Your task to perform on an android device: Search for pizza restaurants on Maps Image 0: 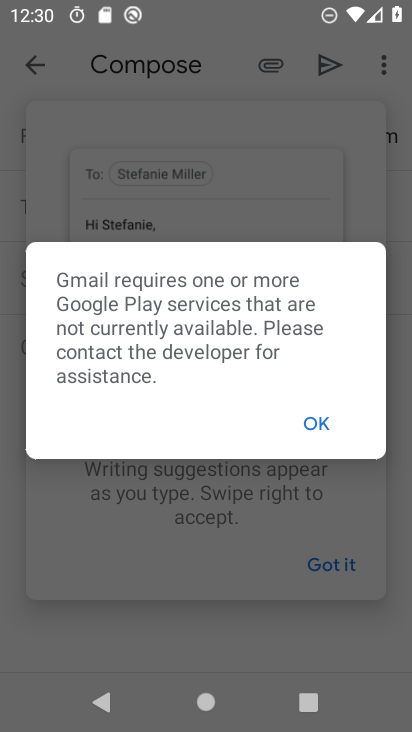
Step 0: press home button
Your task to perform on an android device: Search for pizza restaurants on Maps Image 1: 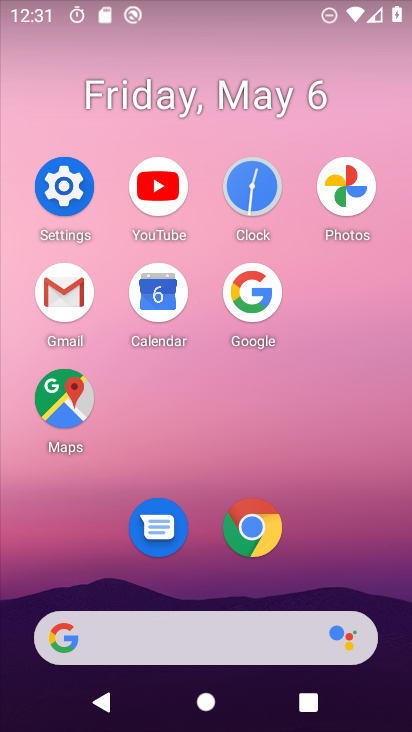
Step 1: click (74, 392)
Your task to perform on an android device: Search for pizza restaurants on Maps Image 2: 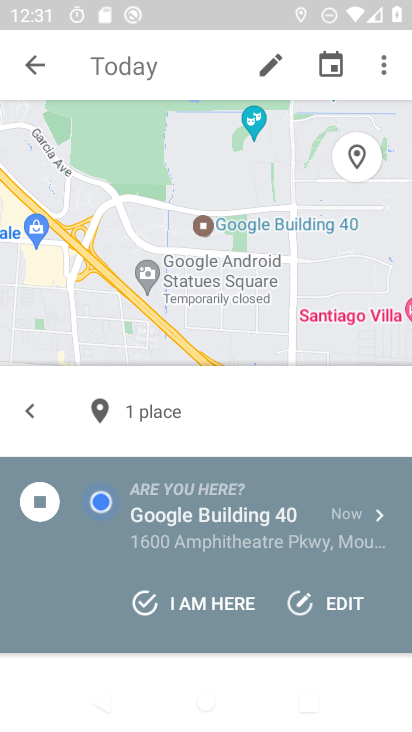
Step 2: click (156, 64)
Your task to perform on an android device: Search for pizza restaurants on Maps Image 3: 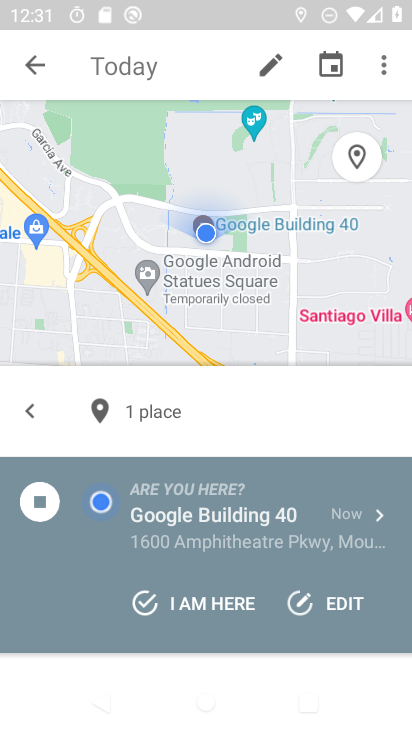
Step 3: click (26, 68)
Your task to perform on an android device: Search for pizza restaurants on Maps Image 4: 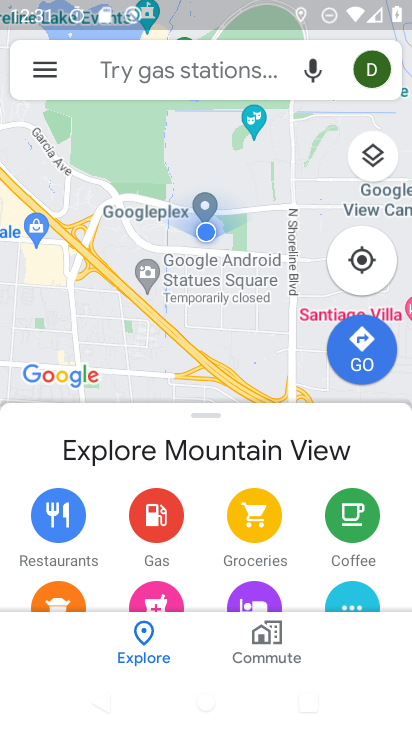
Step 4: click (166, 68)
Your task to perform on an android device: Search for pizza restaurants on Maps Image 5: 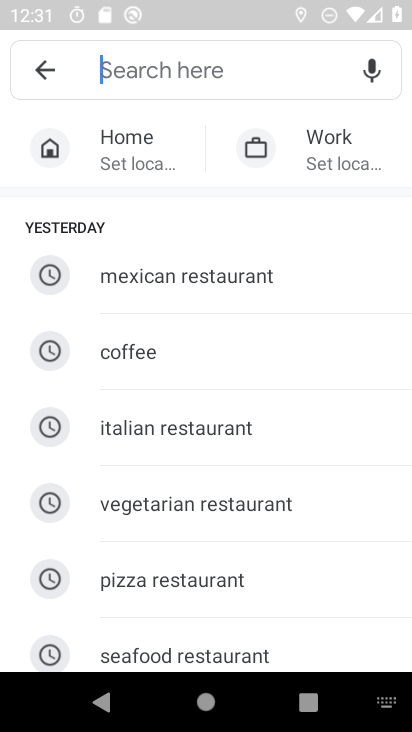
Step 5: type "pizza restaurants"
Your task to perform on an android device: Search for pizza restaurants on Maps Image 6: 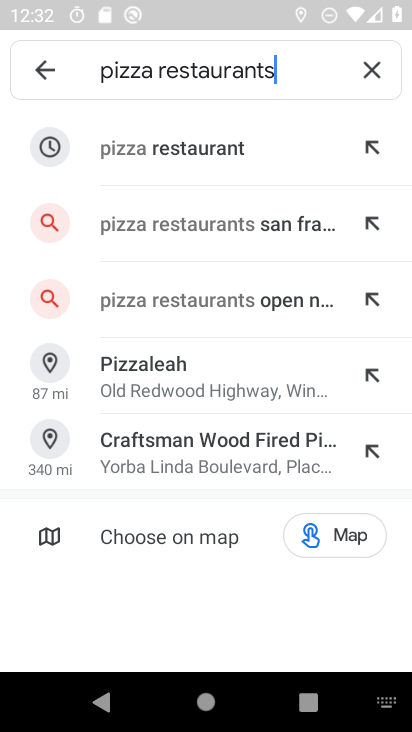
Step 6: task complete